Your task to perform on an android device: remove spam from my inbox in the gmail app Image 0: 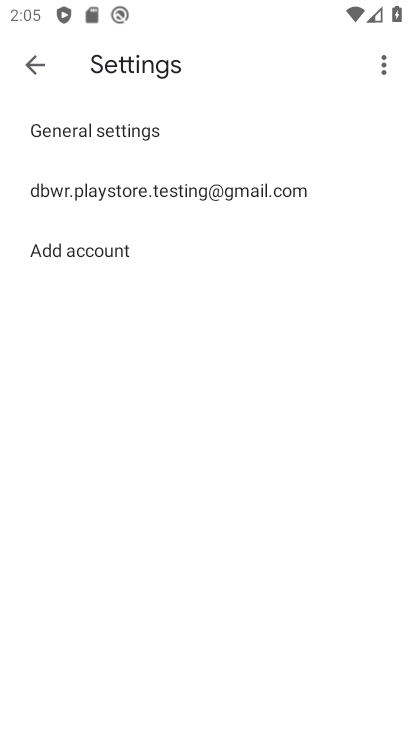
Step 0: press home button
Your task to perform on an android device: remove spam from my inbox in the gmail app Image 1: 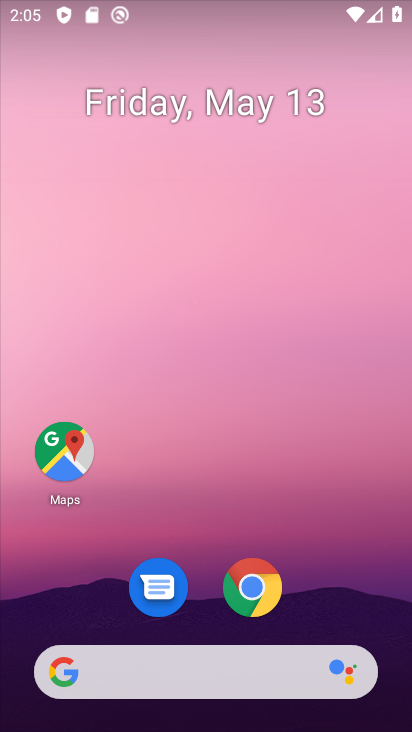
Step 1: drag from (322, 640) to (309, 140)
Your task to perform on an android device: remove spam from my inbox in the gmail app Image 2: 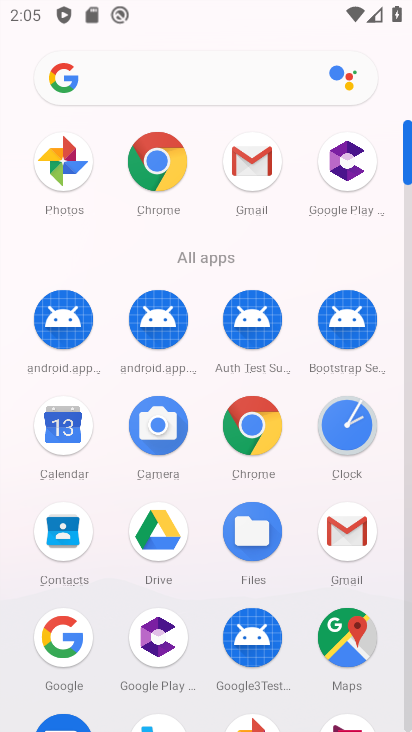
Step 2: click (258, 154)
Your task to perform on an android device: remove spam from my inbox in the gmail app Image 3: 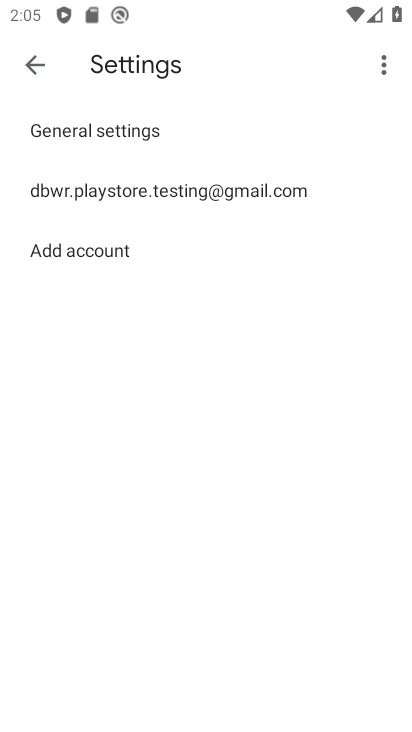
Step 3: click (252, 192)
Your task to perform on an android device: remove spam from my inbox in the gmail app Image 4: 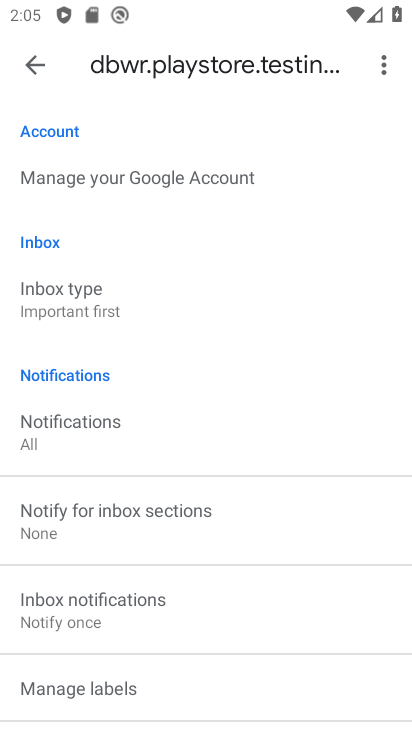
Step 4: click (31, 56)
Your task to perform on an android device: remove spam from my inbox in the gmail app Image 5: 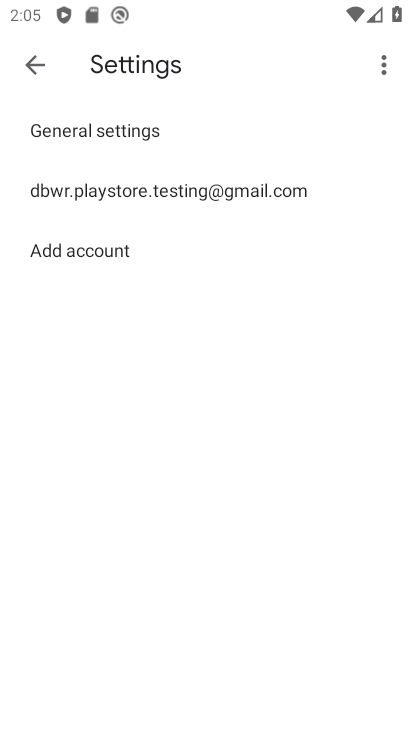
Step 5: click (31, 56)
Your task to perform on an android device: remove spam from my inbox in the gmail app Image 6: 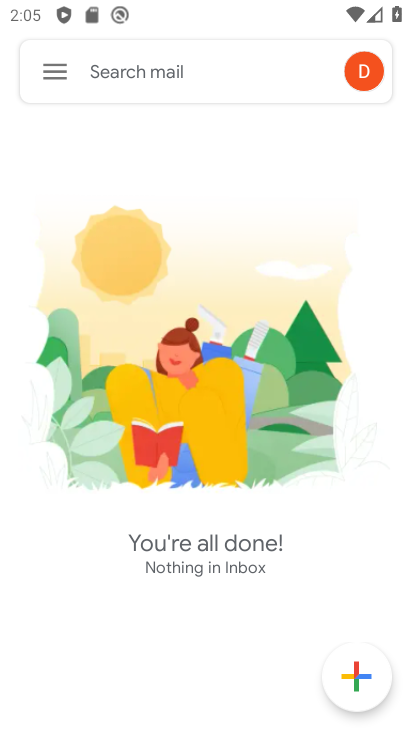
Step 6: click (62, 73)
Your task to perform on an android device: remove spam from my inbox in the gmail app Image 7: 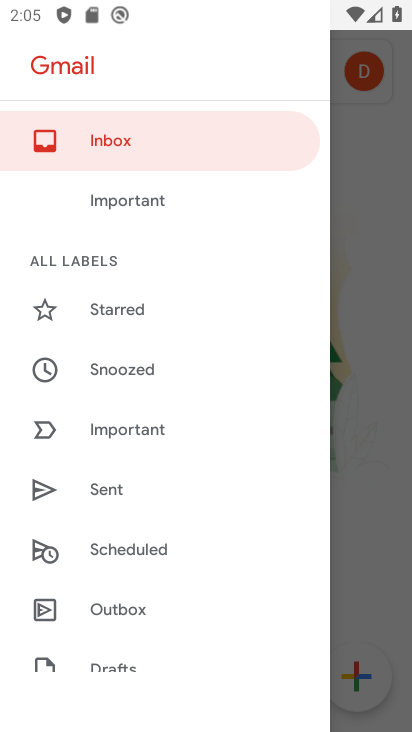
Step 7: drag from (141, 444) to (223, 174)
Your task to perform on an android device: remove spam from my inbox in the gmail app Image 8: 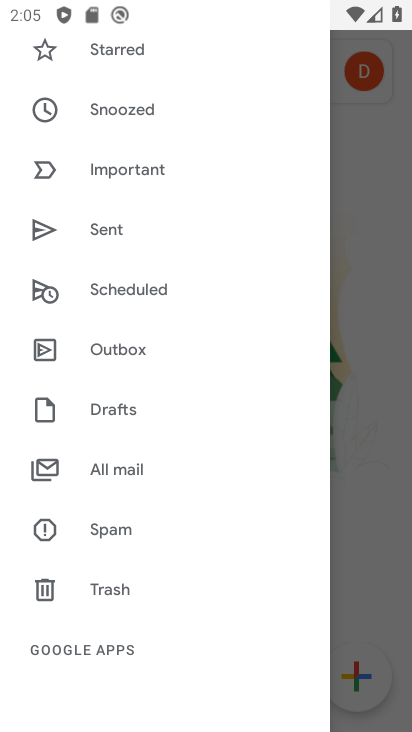
Step 8: click (120, 464)
Your task to perform on an android device: remove spam from my inbox in the gmail app Image 9: 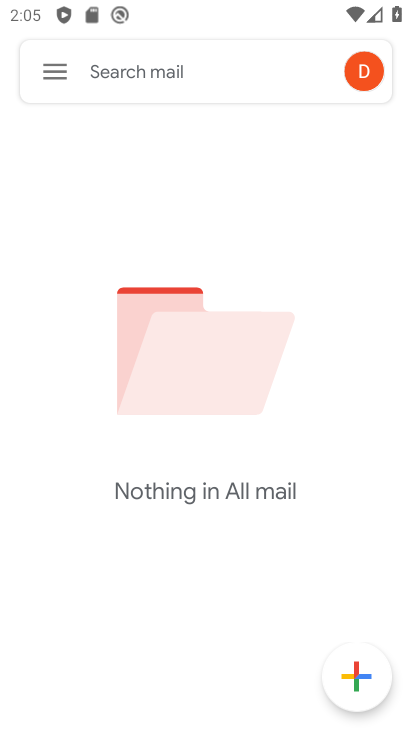
Step 9: click (42, 90)
Your task to perform on an android device: remove spam from my inbox in the gmail app Image 10: 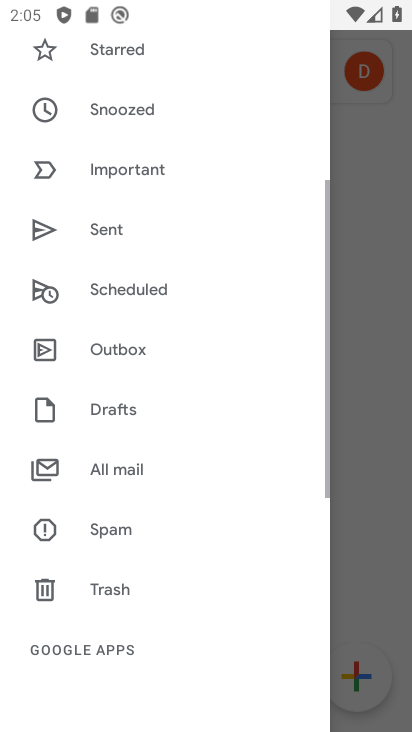
Step 10: click (111, 525)
Your task to perform on an android device: remove spam from my inbox in the gmail app Image 11: 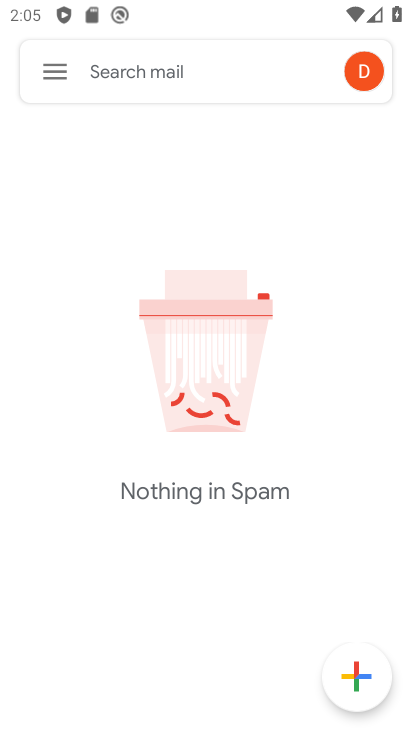
Step 11: task complete